Your task to perform on an android device: toggle notification dots Image 0: 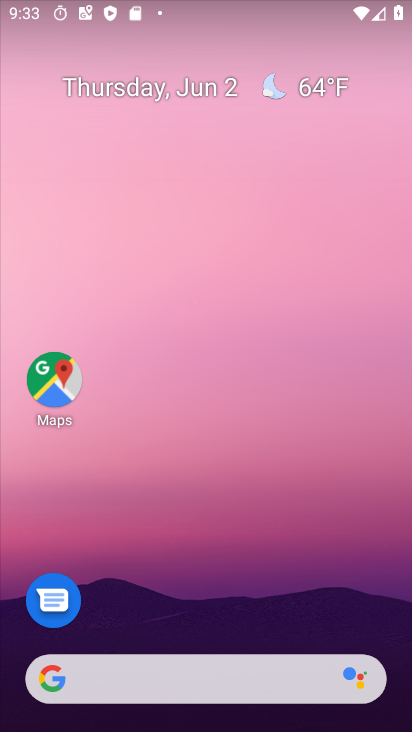
Step 0: drag from (224, 601) to (241, 47)
Your task to perform on an android device: toggle notification dots Image 1: 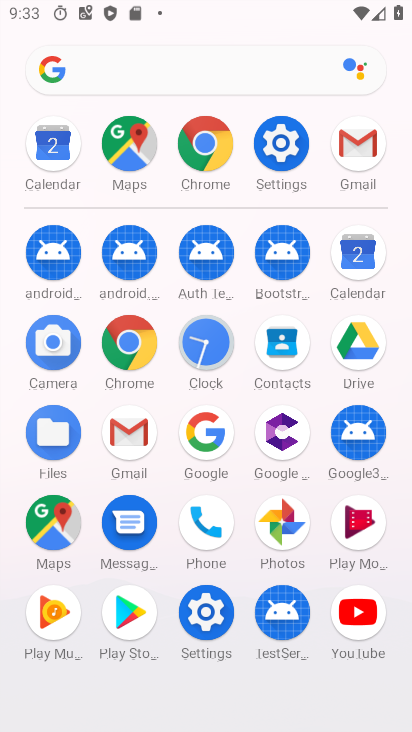
Step 1: click (197, 612)
Your task to perform on an android device: toggle notification dots Image 2: 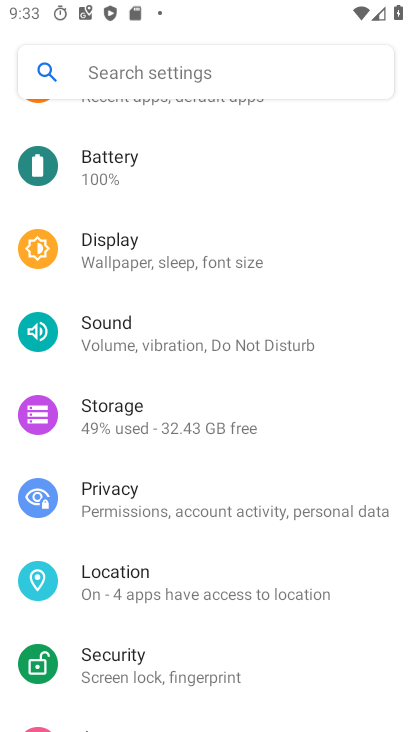
Step 2: drag from (231, 156) to (243, 554)
Your task to perform on an android device: toggle notification dots Image 3: 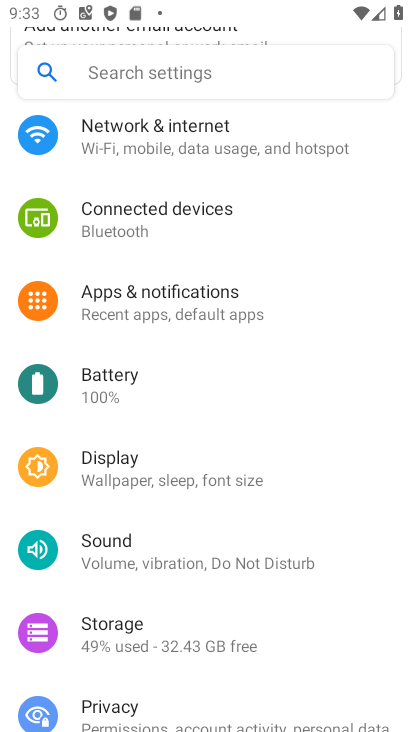
Step 3: click (140, 311)
Your task to perform on an android device: toggle notification dots Image 4: 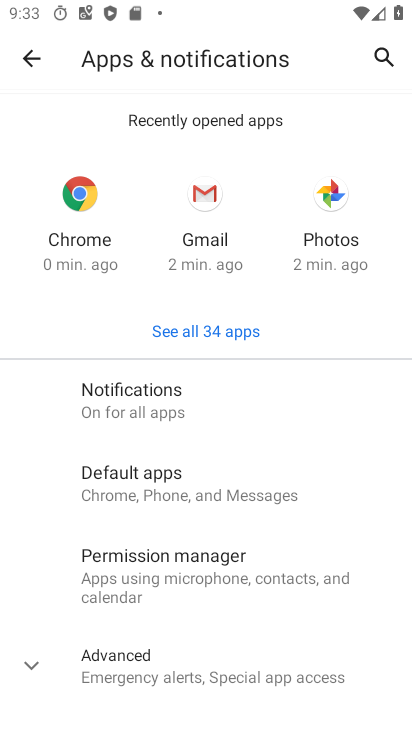
Step 4: click (142, 412)
Your task to perform on an android device: toggle notification dots Image 5: 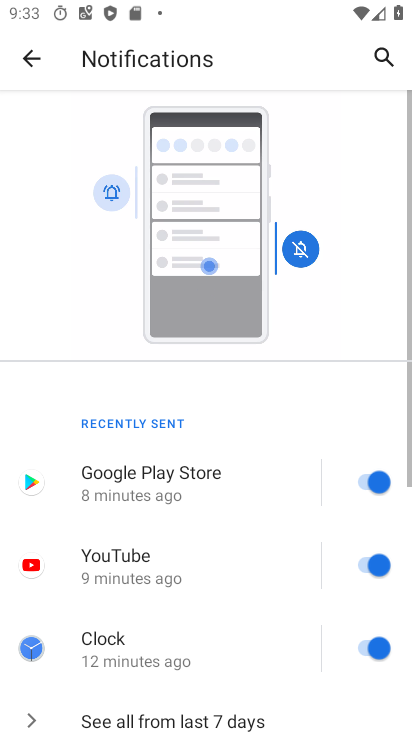
Step 5: drag from (270, 597) to (273, 180)
Your task to perform on an android device: toggle notification dots Image 6: 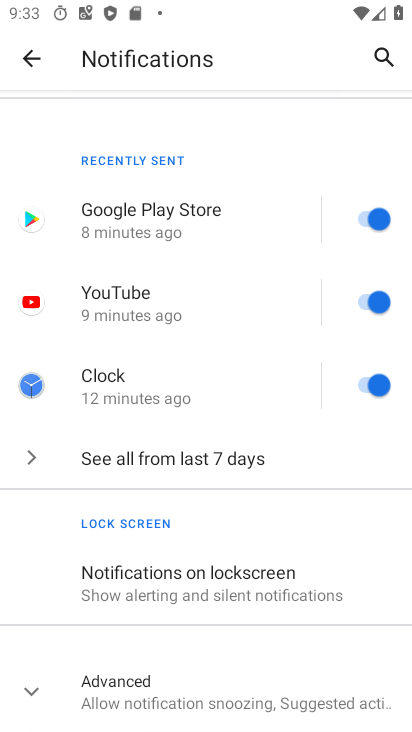
Step 6: click (179, 699)
Your task to perform on an android device: toggle notification dots Image 7: 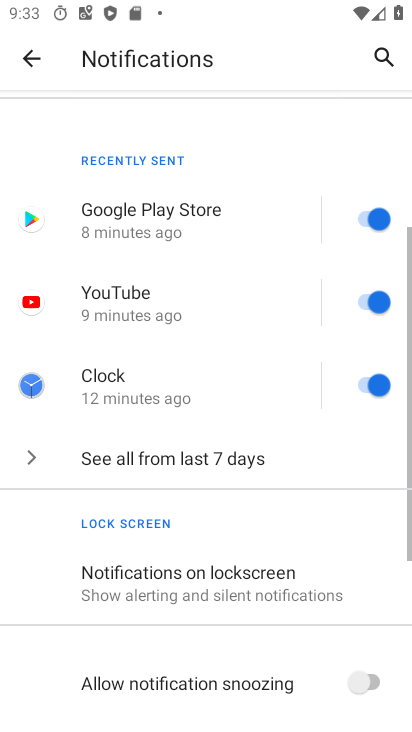
Step 7: drag from (305, 564) to (297, 87)
Your task to perform on an android device: toggle notification dots Image 8: 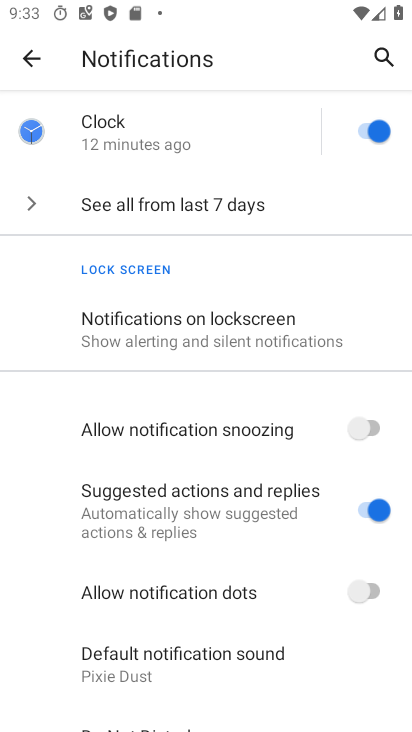
Step 8: click (364, 588)
Your task to perform on an android device: toggle notification dots Image 9: 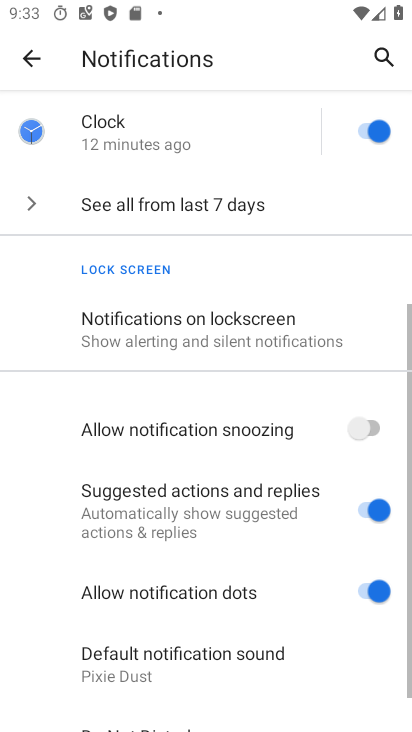
Step 9: task complete